Your task to perform on an android device: turn off smart reply in the gmail app Image 0: 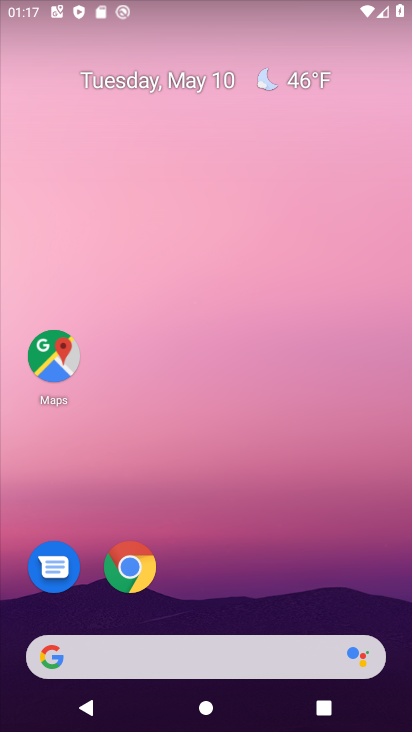
Step 0: drag from (271, 573) to (272, 237)
Your task to perform on an android device: turn off smart reply in the gmail app Image 1: 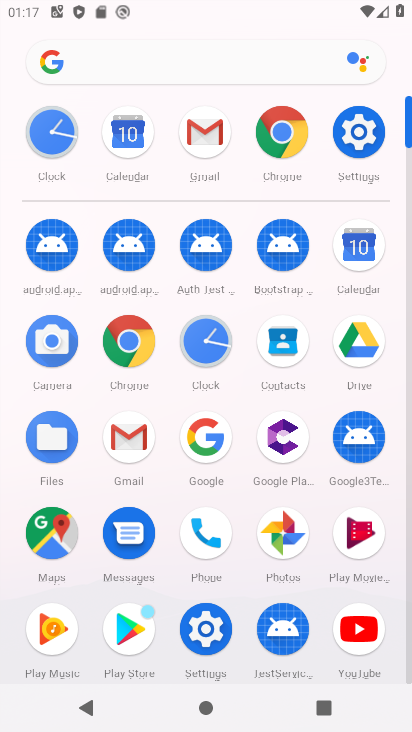
Step 1: click (130, 437)
Your task to perform on an android device: turn off smart reply in the gmail app Image 2: 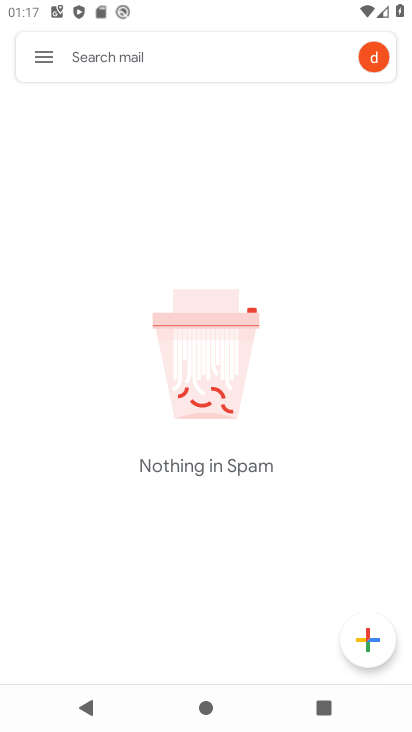
Step 2: click (48, 65)
Your task to perform on an android device: turn off smart reply in the gmail app Image 3: 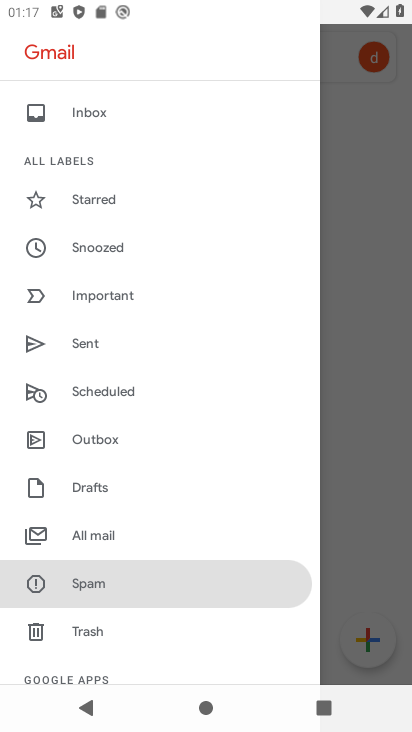
Step 3: drag from (144, 644) to (170, 142)
Your task to perform on an android device: turn off smart reply in the gmail app Image 4: 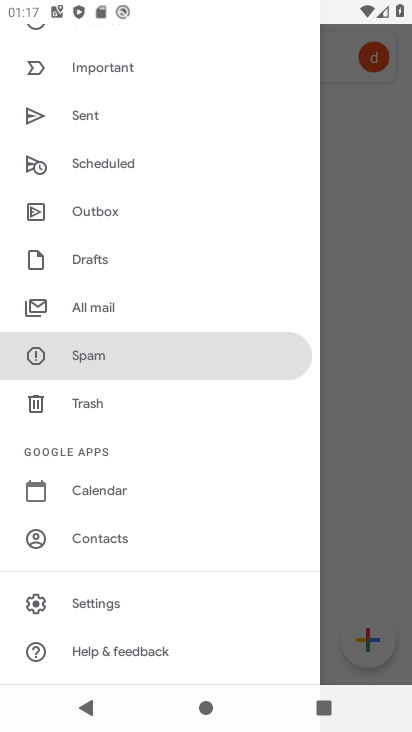
Step 4: click (123, 611)
Your task to perform on an android device: turn off smart reply in the gmail app Image 5: 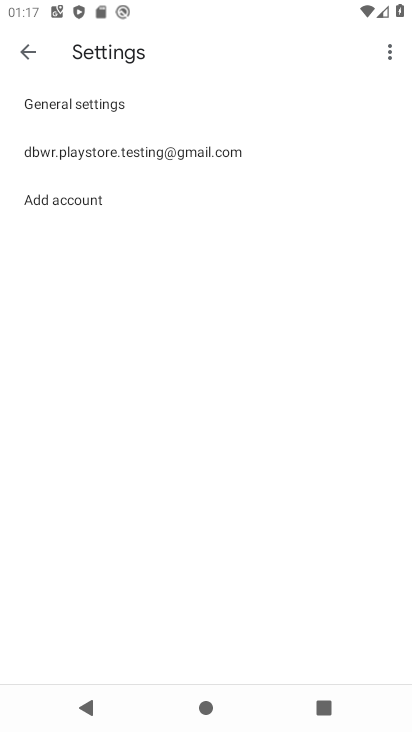
Step 5: click (127, 154)
Your task to perform on an android device: turn off smart reply in the gmail app Image 6: 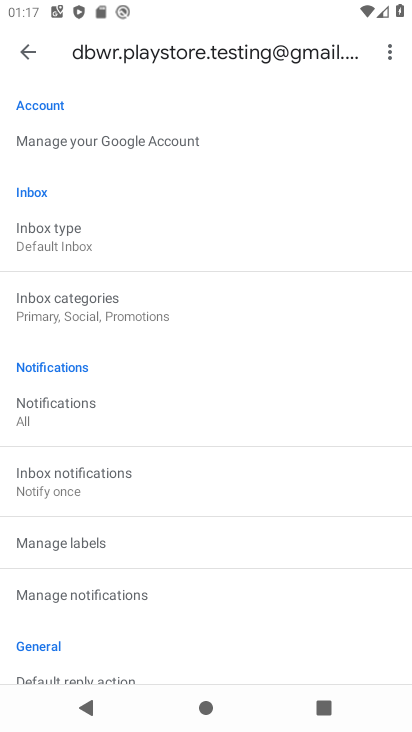
Step 6: drag from (165, 547) to (202, 135)
Your task to perform on an android device: turn off smart reply in the gmail app Image 7: 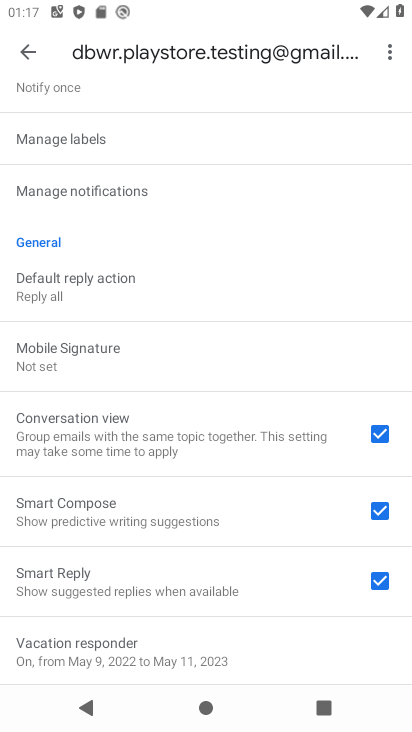
Step 7: click (376, 580)
Your task to perform on an android device: turn off smart reply in the gmail app Image 8: 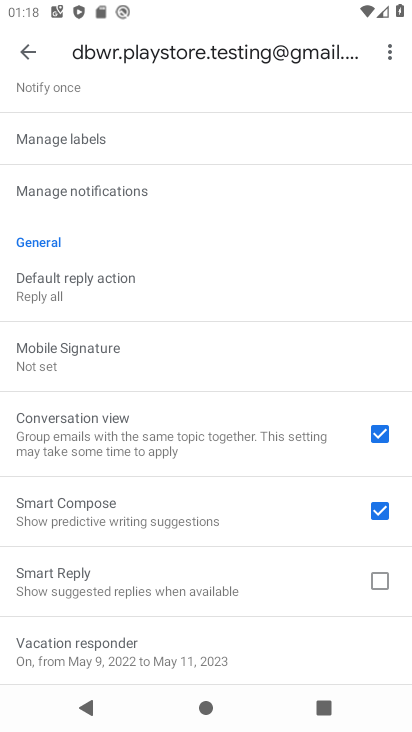
Step 8: task complete